Your task to perform on an android device: read, delete, or share a saved page in the chrome app Image 0: 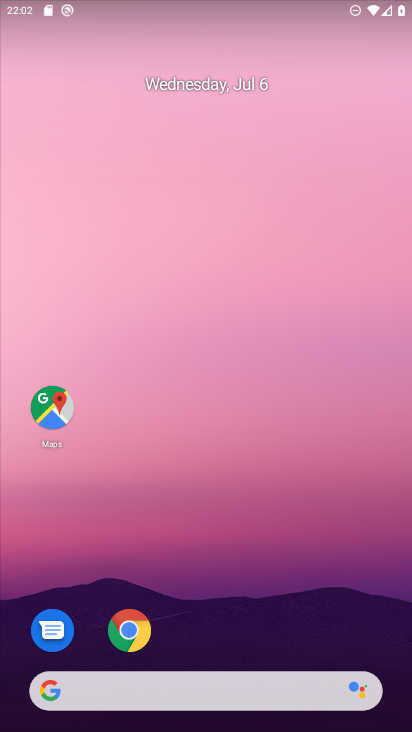
Step 0: press home button
Your task to perform on an android device: read, delete, or share a saved page in the chrome app Image 1: 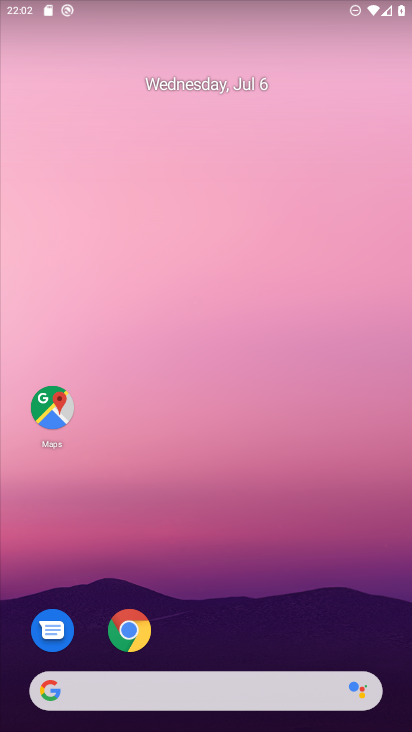
Step 1: drag from (184, 380) to (192, 70)
Your task to perform on an android device: read, delete, or share a saved page in the chrome app Image 2: 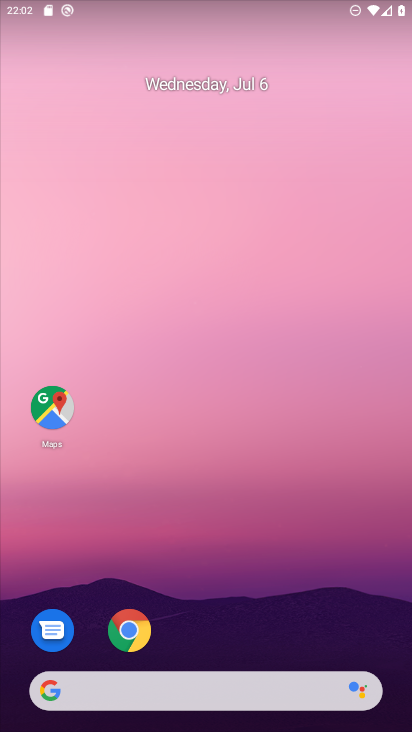
Step 2: drag from (272, 563) to (210, 19)
Your task to perform on an android device: read, delete, or share a saved page in the chrome app Image 3: 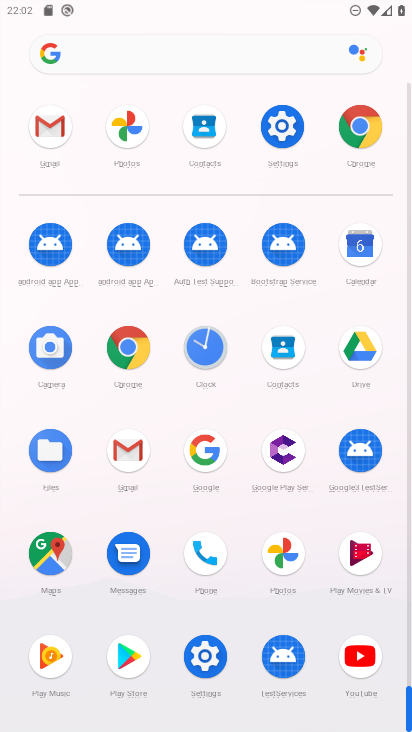
Step 3: click (379, 115)
Your task to perform on an android device: read, delete, or share a saved page in the chrome app Image 4: 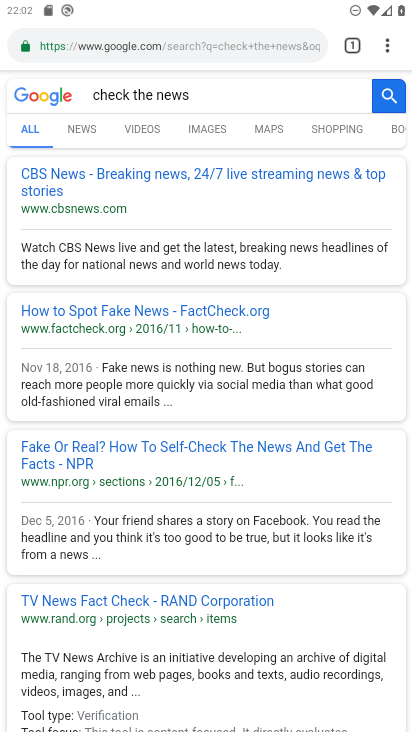
Step 4: drag from (384, 46) to (197, 291)
Your task to perform on an android device: read, delete, or share a saved page in the chrome app Image 5: 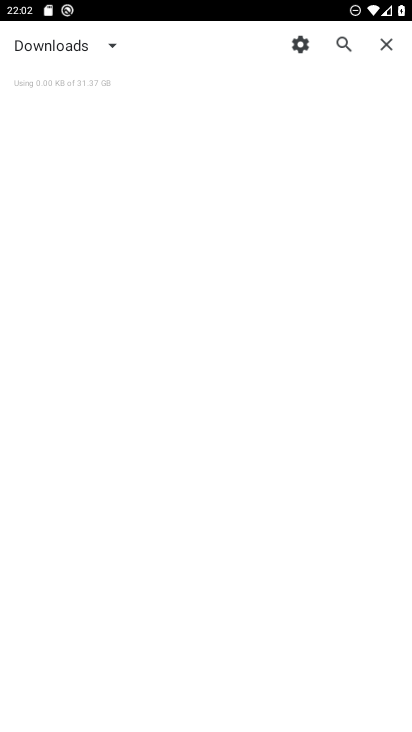
Step 5: click (115, 48)
Your task to perform on an android device: read, delete, or share a saved page in the chrome app Image 6: 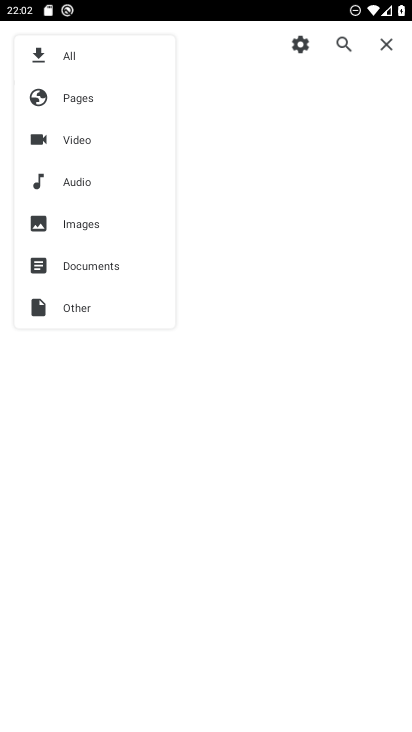
Step 6: click (74, 94)
Your task to perform on an android device: read, delete, or share a saved page in the chrome app Image 7: 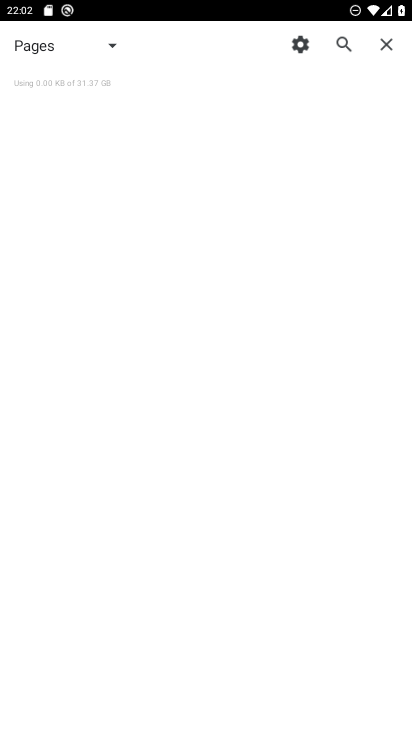
Step 7: click (101, 46)
Your task to perform on an android device: read, delete, or share a saved page in the chrome app Image 8: 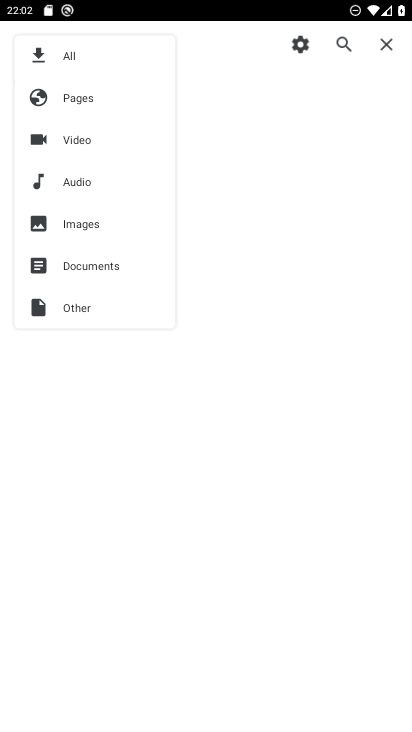
Step 8: click (68, 203)
Your task to perform on an android device: read, delete, or share a saved page in the chrome app Image 9: 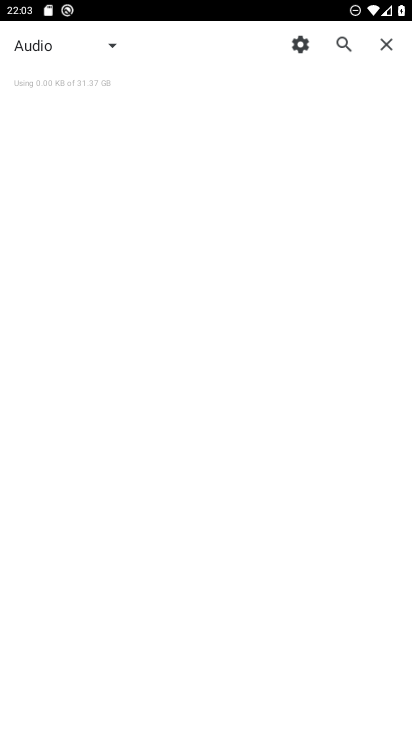
Step 9: click (94, 47)
Your task to perform on an android device: read, delete, or share a saved page in the chrome app Image 10: 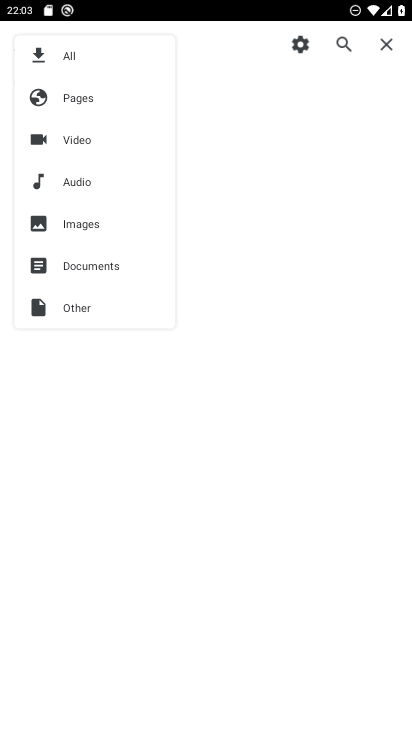
Step 10: click (67, 96)
Your task to perform on an android device: read, delete, or share a saved page in the chrome app Image 11: 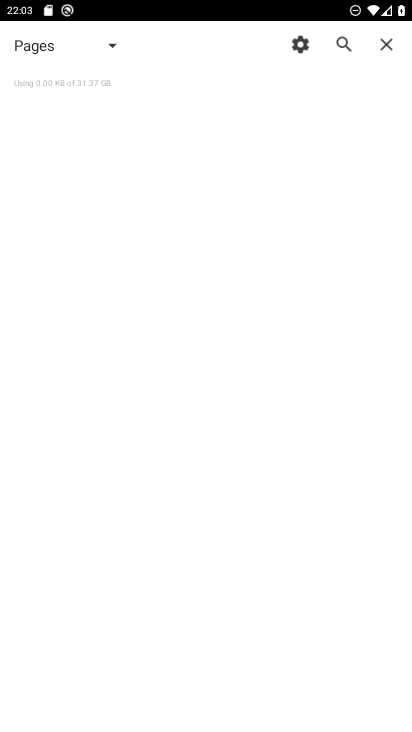
Step 11: task complete